Your task to perform on an android device: toggle sleep mode Image 0: 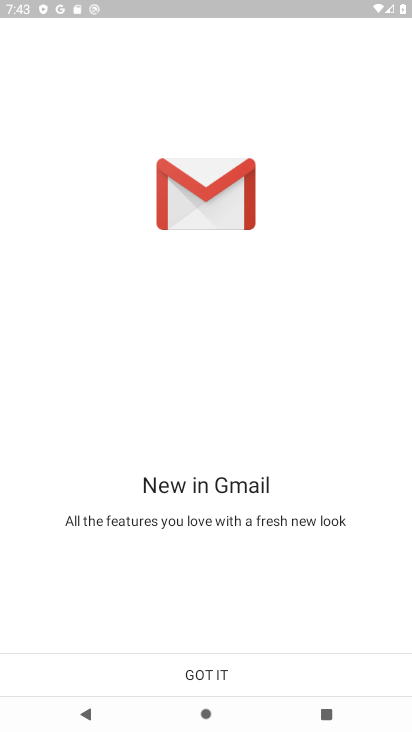
Step 0: press home button
Your task to perform on an android device: toggle sleep mode Image 1: 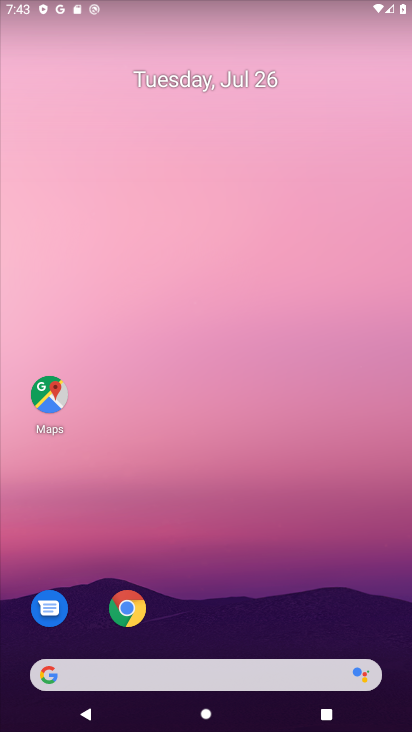
Step 1: drag from (280, 647) to (167, 75)
Your task to perform on an android device: toggle sleep mode Image 2: 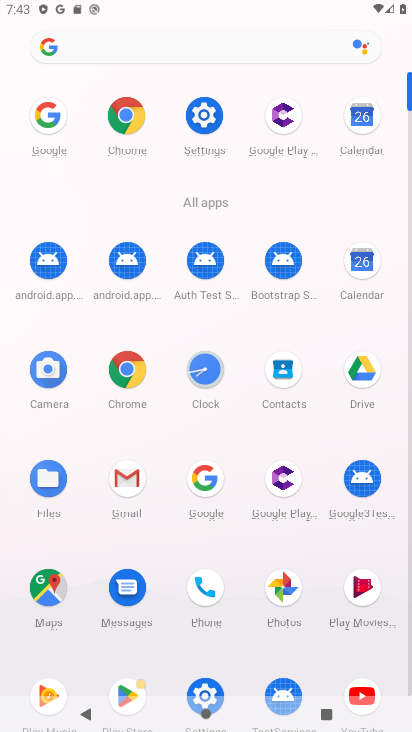
Step 2: click (199, 111)
Your task to perform on an android device: toggle sleep mode Image 3: 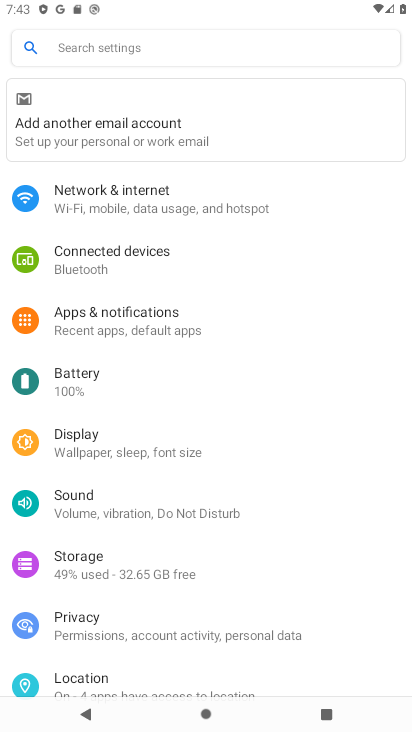
Step 3: click (162, 458)
Your task to perform on an android device: toggle sleep mode Image 4: 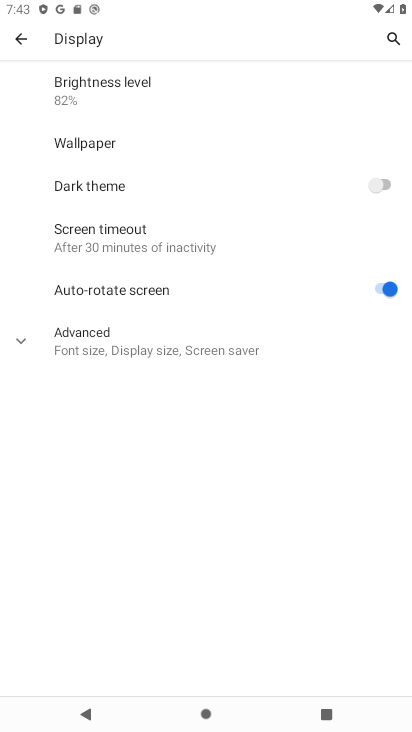
Step 4: click (85, 243)
Your task to perform on an android device: toggle sleep mode Image 5: 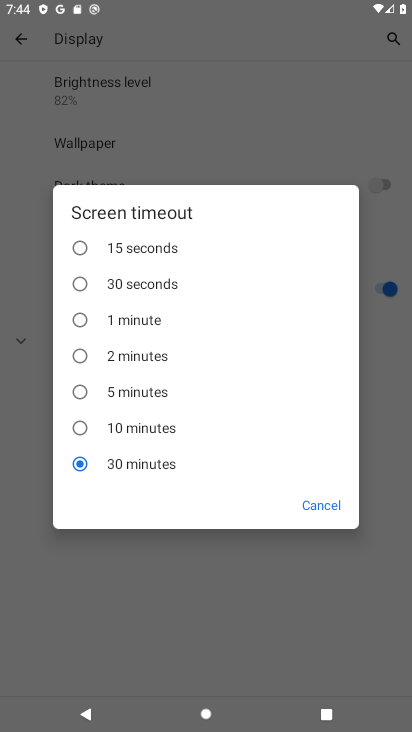
Step 5: click (153, 353)
Your task to perform on an android device: toggle sleep mode Image 6: 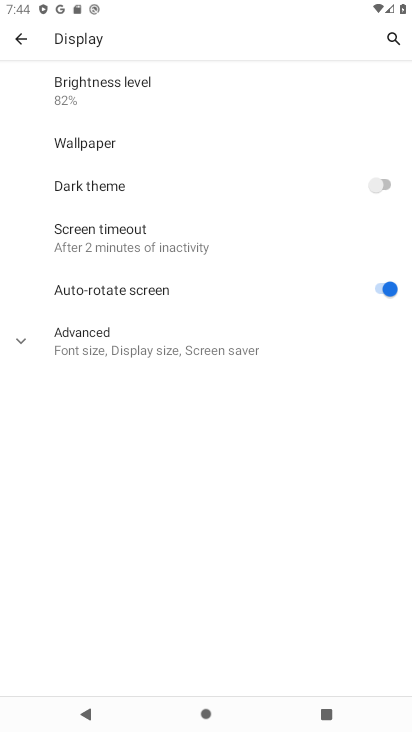
Step 6: task complete